Your task to perform on an android device: delete the emails in spam in the gmail app Image 0: 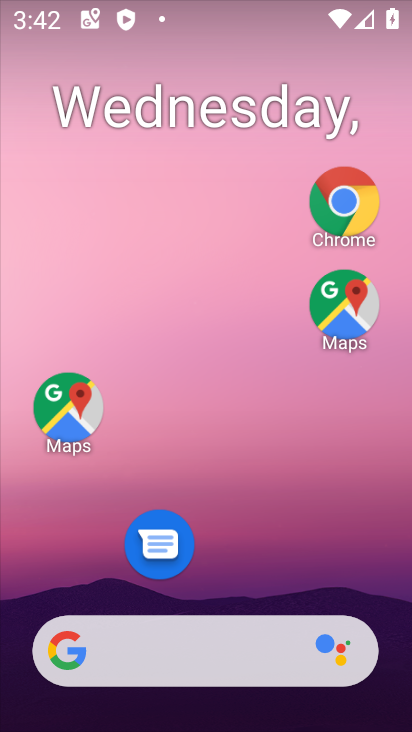
Step 0: drag from (270, 576) to (230, 150)
Your task to perform on an android device: delete the emails in spam in the gmail app Image 1: 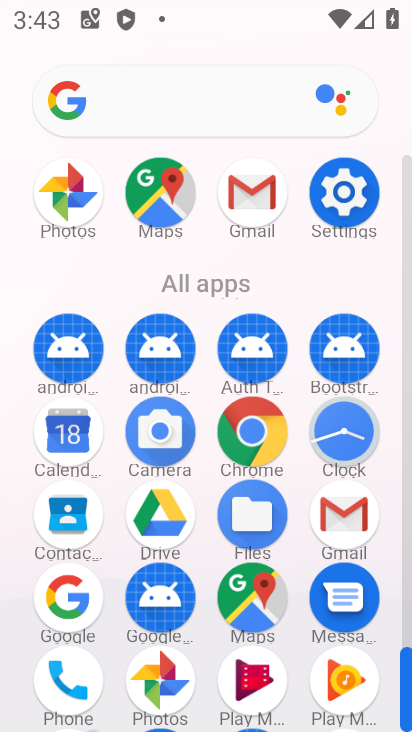
Step 1: click (246, 202)
Your task to perform on an android device: delete the emails in spam in the gmail app Image 2: 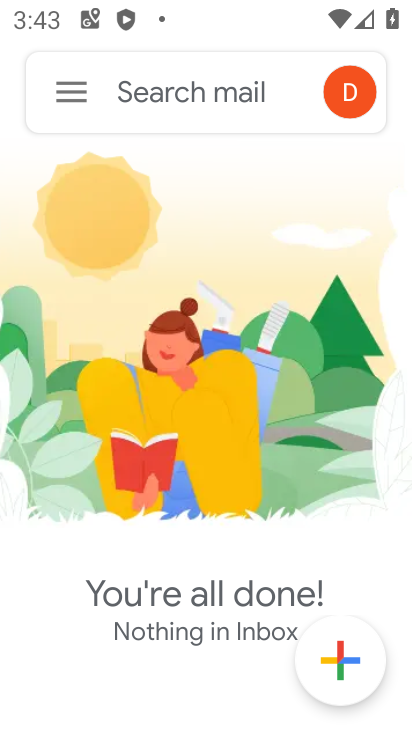
Step 2: click (63, 92)
Your task to perform on an android device: delete the emails in spam in the gmail app Image 3: 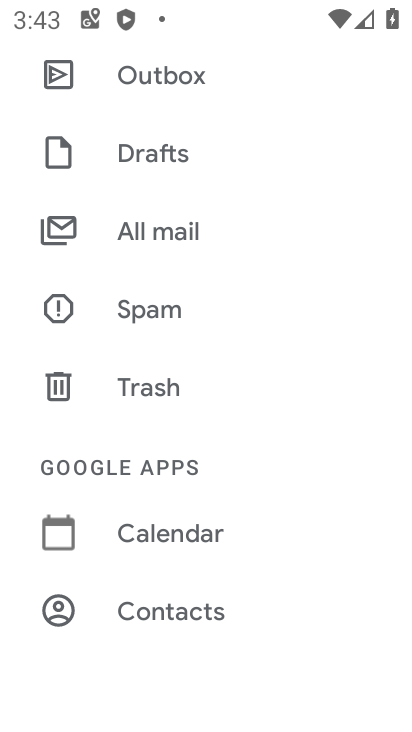
Step 3: click (149, 316)
Your task to perform on an android device: delete the emails in spam in the gmail app Image 4: 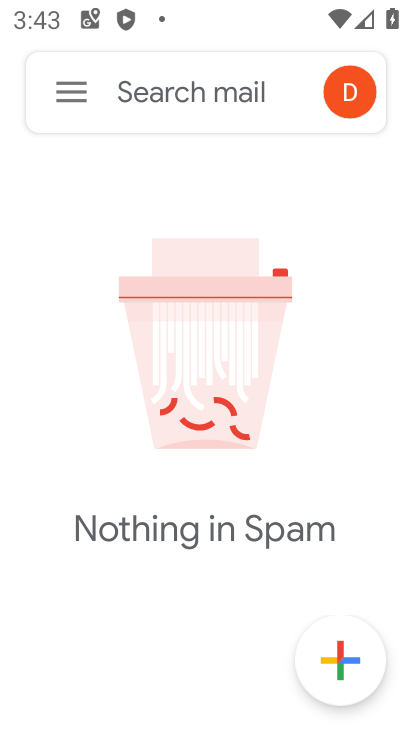
Step 4: task complete